Your task to perform on an android device: Open accessibility settings Image 0: 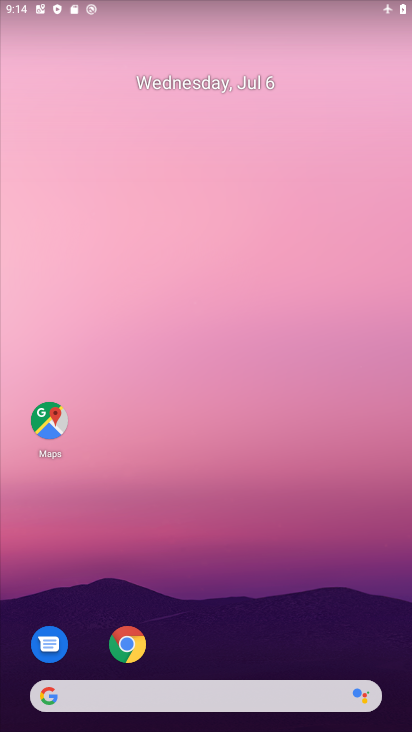
Step 0: drag from (197, 646) to (204, 282)
Your task to perform on an android device: Open accessibility settings Image 1: 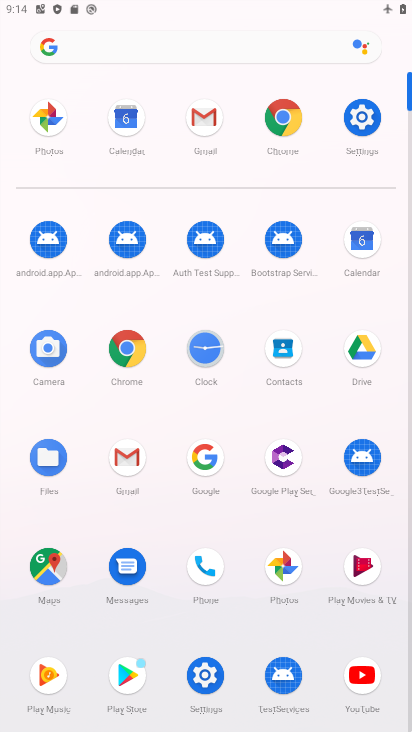
Step 1: click (350, 120)
Your task to perform on an android device: Open accessibility settings Image 2: 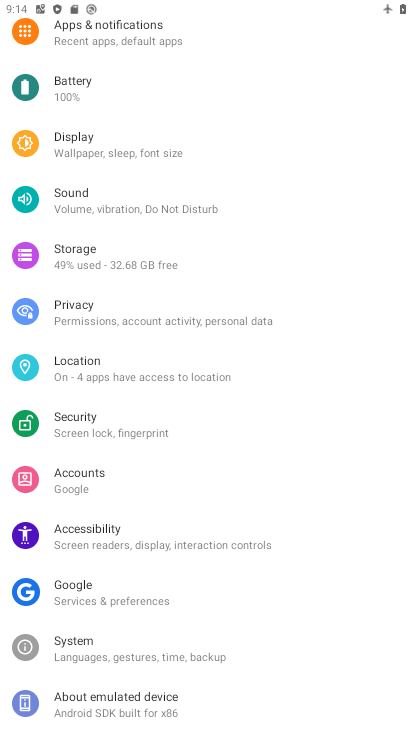
Step 2: click (97, 537)
Your task to perform on an android device: Open accessibility settings Image 3: 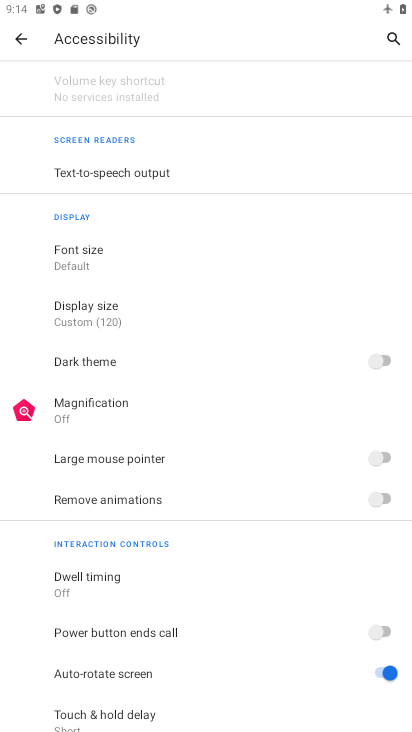
Step 3: task complete